Your task to perform on an android device: add a contact in the contacts app Image 0: 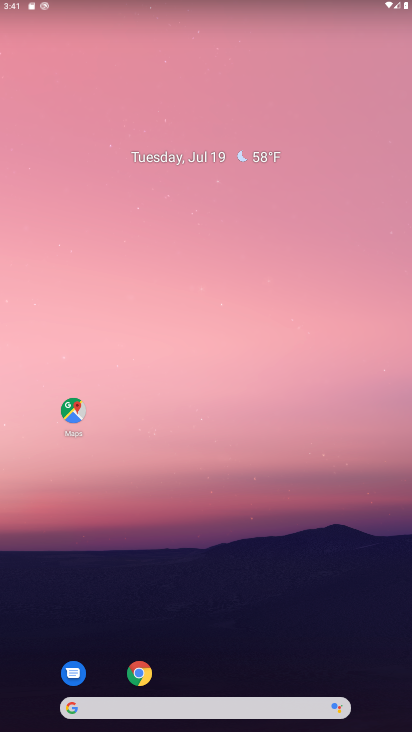
Step 0: drag from (193, 624) to (137, 20)
Your task to perform on an android device: add a contact in the contacts app Image 1: 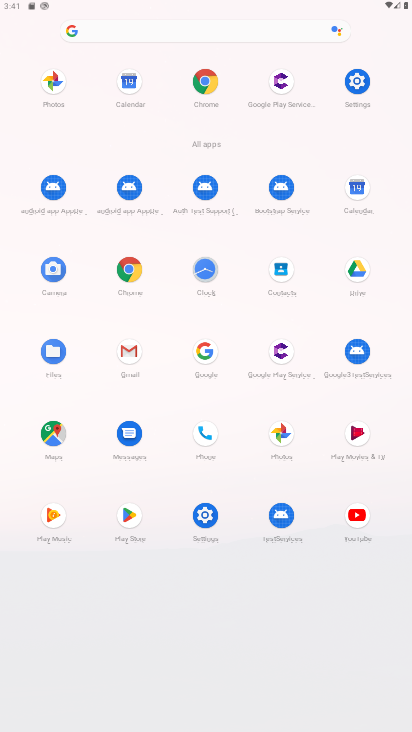
Step 1: click (290, 272)
Your task to perform on an android device: add a contact in the contacts app Image 2: 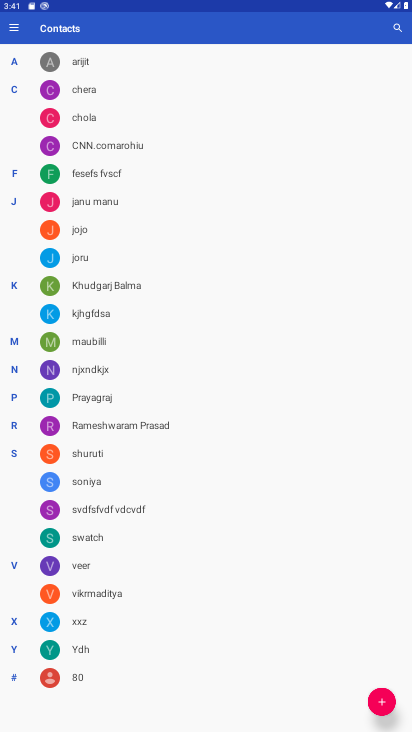
Step 2: click (377, 691)
Your task to perform on an android device: add a contact in the contacts app Image 3: 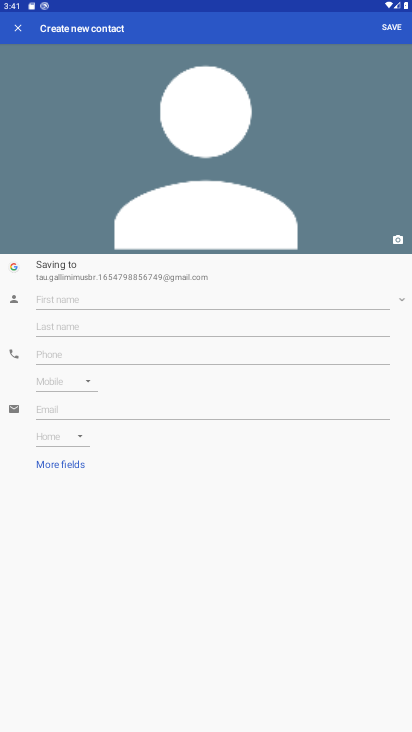
Step 3: click (82, 297)
Your task to perform on an android device: add a contact in the contacts app Image 4: 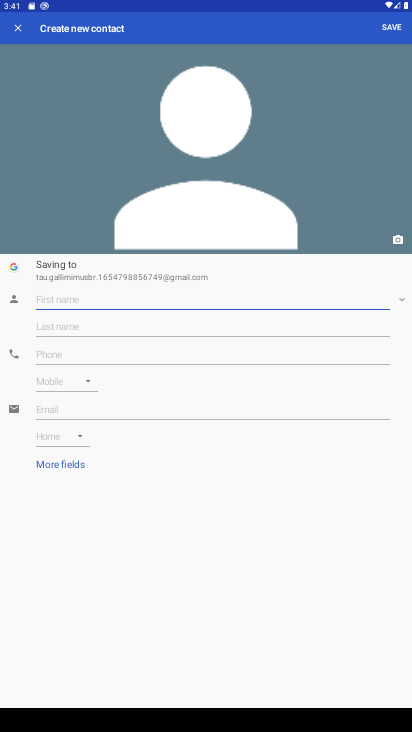
Step 4: type "lily"
Your task to perform on an android device: add a contact in the contacts app Image 5: 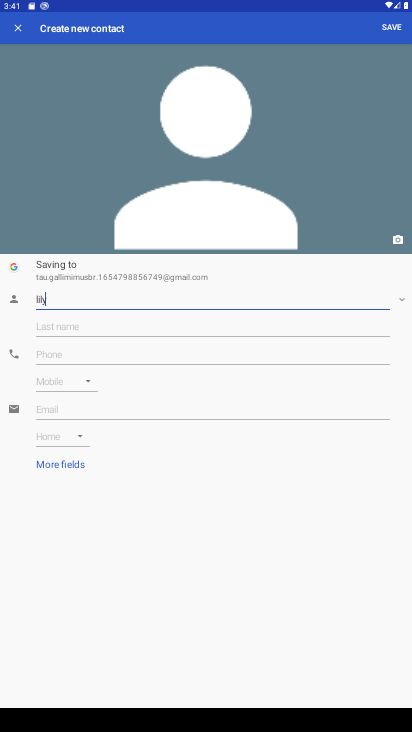
Step 5: click (79, 359)
Your task to perform on an android device: add a contact in the contacts app Image 6: 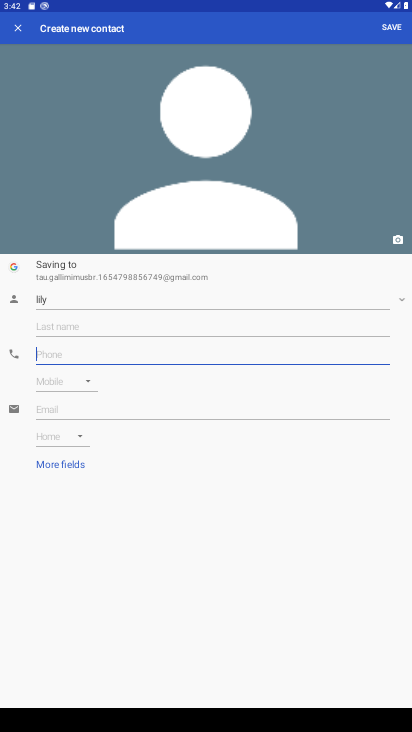
Step 6: type "9897787878"
Your task to perform on an android device: add a contact in the contacts app Image 7: 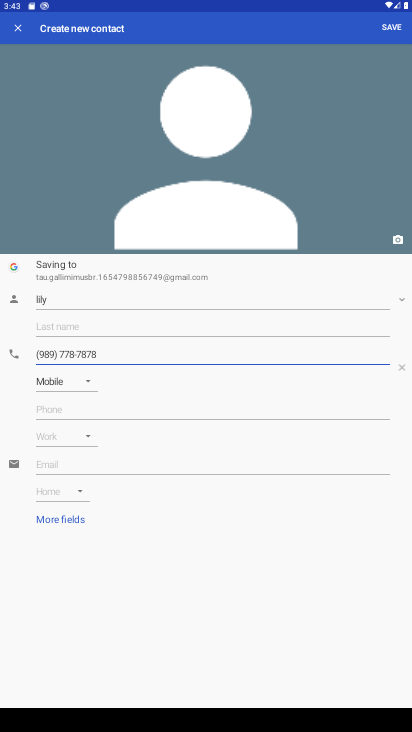
Step 7: click (392, 23)
Your task to perform on an android device: add a contact in the contacts app Image 8: 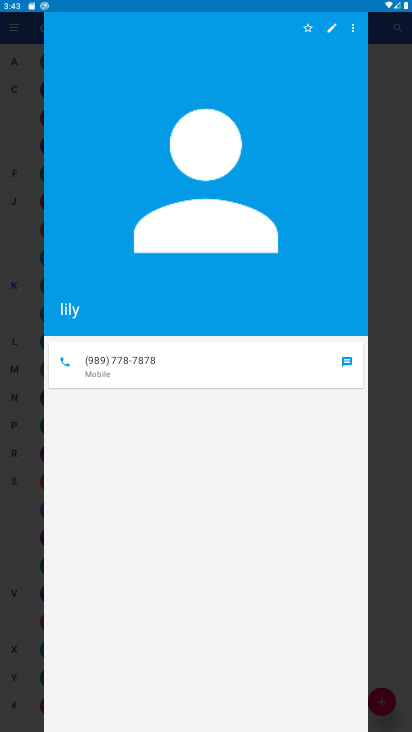
Step 8: task complete